Your task to perform on an android device: toggle show notifications on the lock screen Image 0: 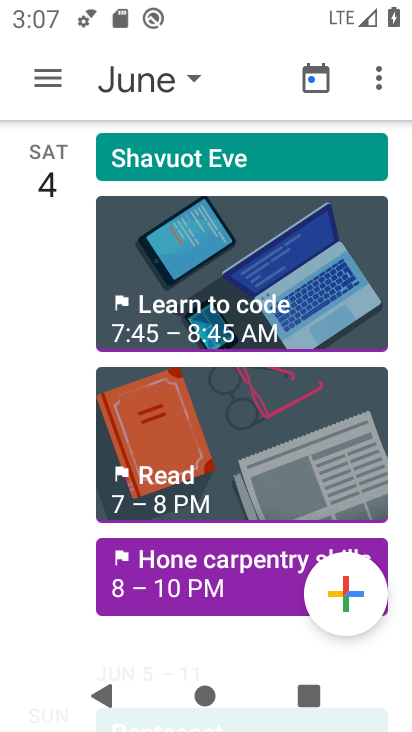
Step 0: press home button
Your task to perform on an android device: toggle show notifications on the lock screen Image 1: 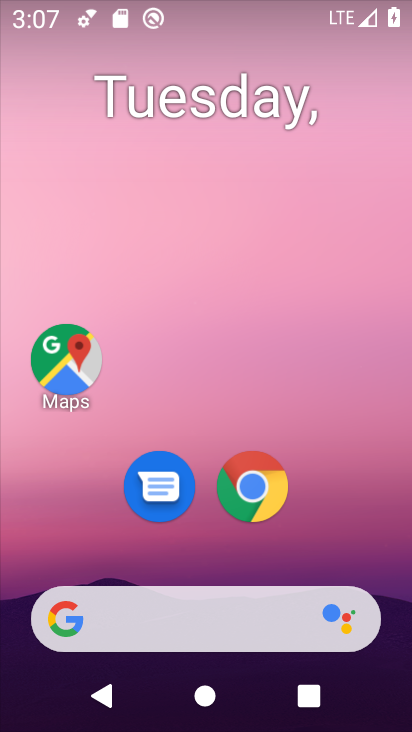
Step 1: drag from (204, 563) to (255, 137)
Your task to perform on an android device: toggle show notifications on the lock screen Image 2: 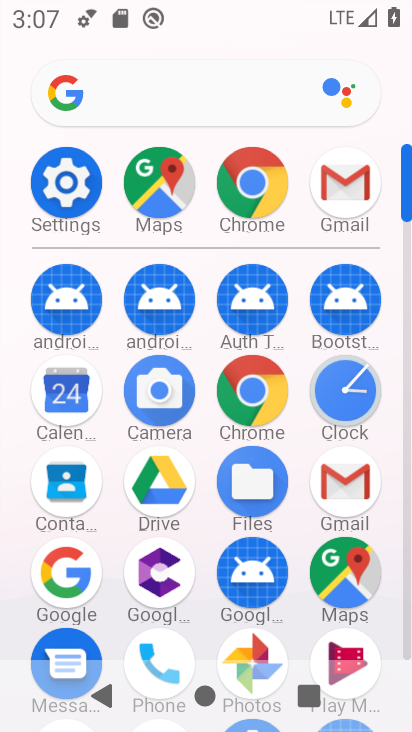
Step 2: click (60, 180)
Your task to perform on an android device: toggle show notifications on the lock screen Image 3: 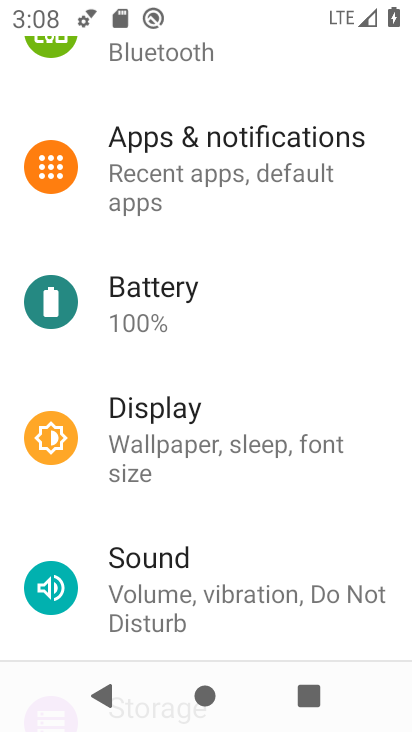
Step 3: click (191, 154)
Your task to perform on an android device: toggle show notifications on the lock screen Image 4: 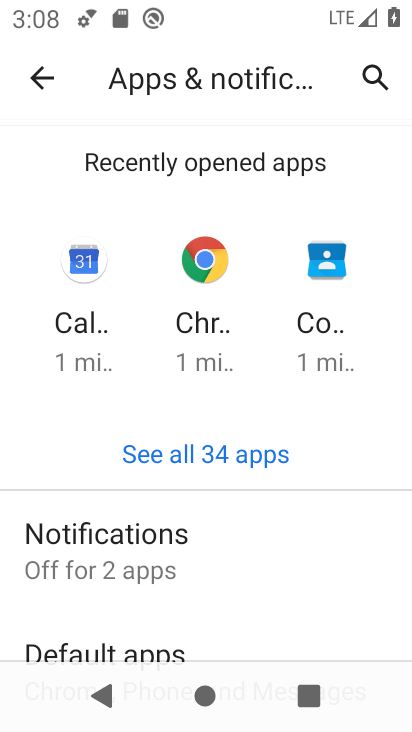
Step 4: click (202, 547)
Your task to perform on an android device: toggle show notifications on the lock screen Image 5: 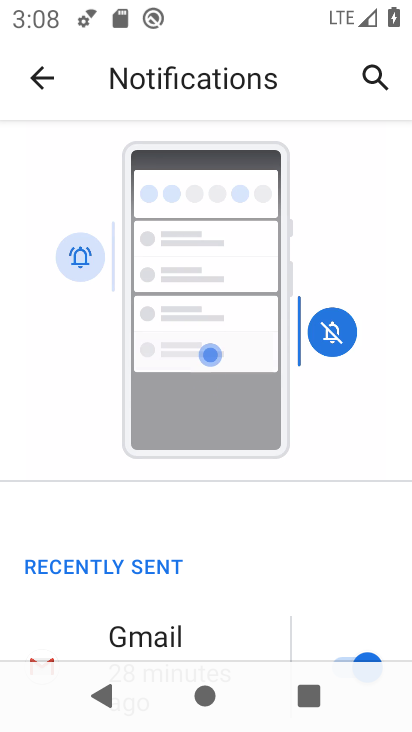
Step 5: drag from (217, 612) to (259, 95)
Your task to perform on an android device: toggle show notifications on the lock screen Image 6: 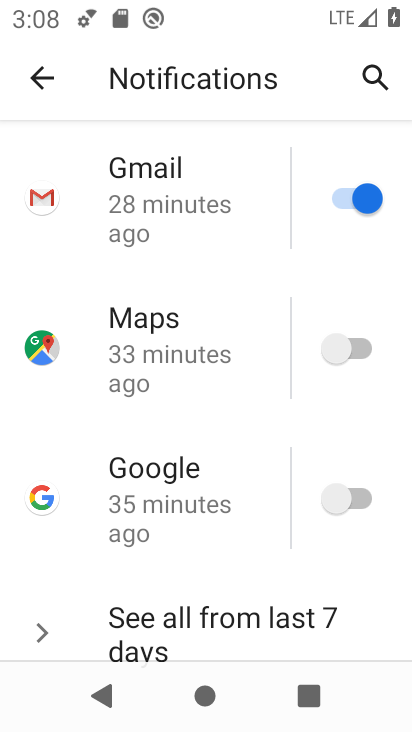
Step 6: drag from (230, 551) to (239, 96)
Your task to perform on an android device: toggle show notifications on the lock screen Image 7: 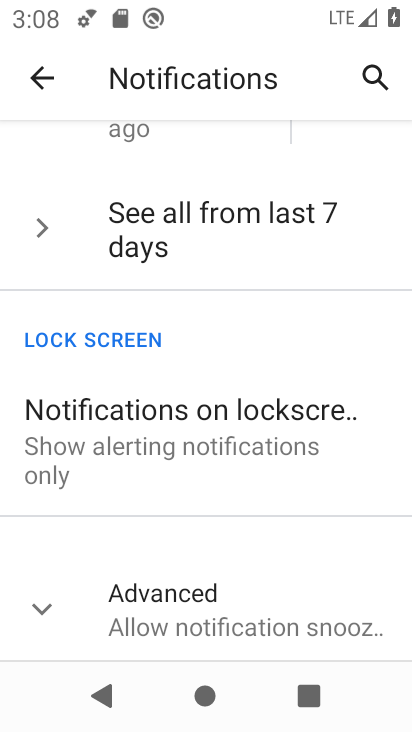
Step 7: click (172, 430)
Your task to perform on an android device: toggle show notifications on the lock screen Image 8: 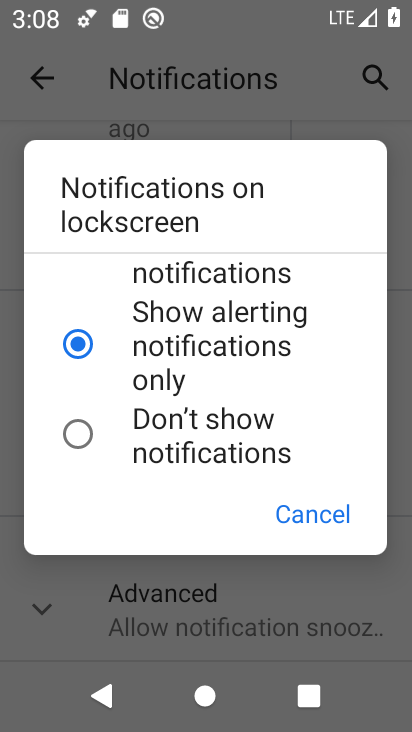
Step 8: drag from (143, 311) to (166, 470)
Your task to perform on an android device: toggle show notifications on the lock screen Image 9: 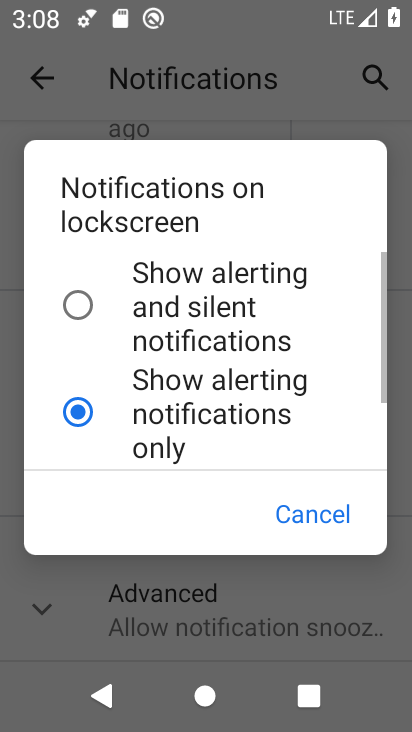
Step 9: click (81, 302)
Your task to perform on an android device: toggle show notifications on the lock screen Image 10: 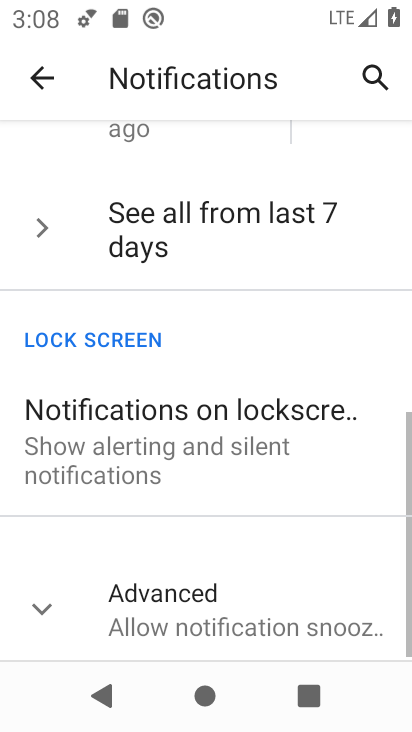
Step 10: task complete